Your task to perform on an android device: turn off priority inbox in the gmail app Image 0: 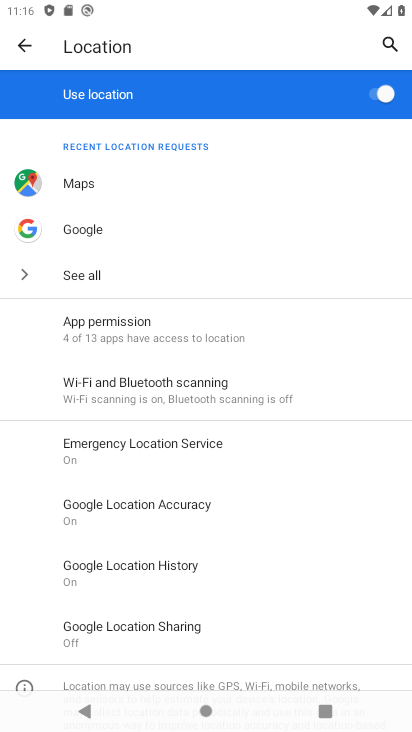
Step 0: press home button
Your task to perform on an android device: turn off priority inbox in the gmail app Image 1: 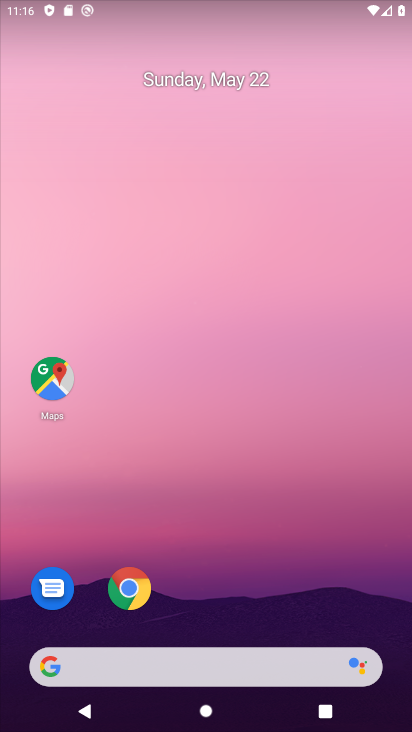
Step 1: drag from (274, 696) to (333, 167)
Your task to perform on an android device: turn off priority inbox in the gmail app Image 2: 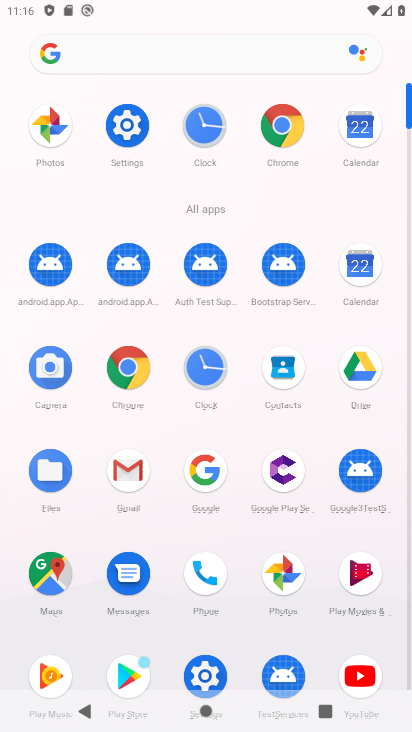
Step 2: click (126, 482)
Your task to perform on an android device: turn off priority inbox in the gmail app Image 3: 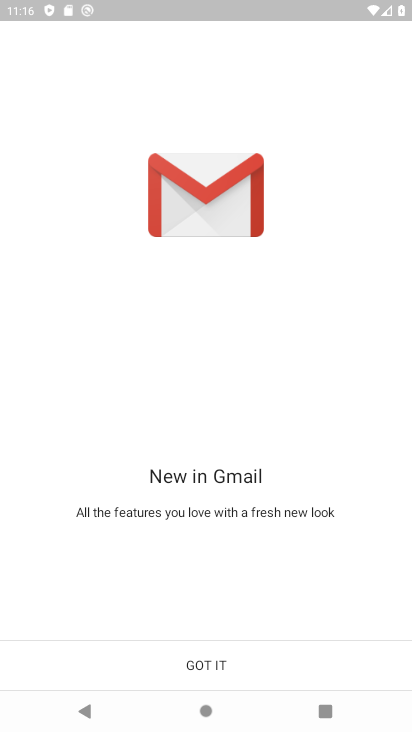
Step 3: click (207, 659)
Your task to perform on an android device: turn off priority inbox in the gmail app Image 4: 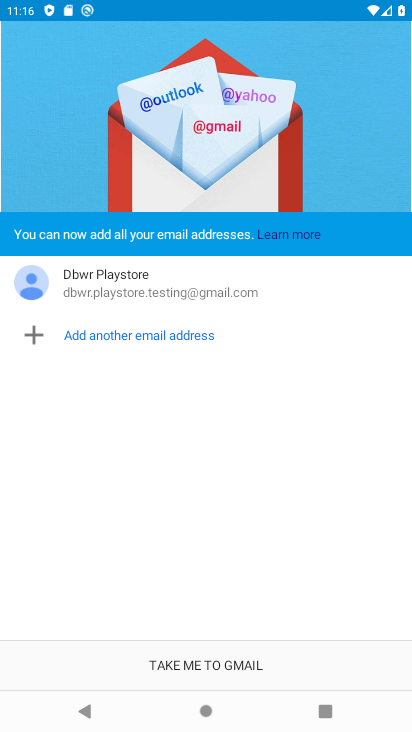
Step 4: click (200, 663)
Your task to perform on an android device: turn off priority inbox in the gmail app Image 5: 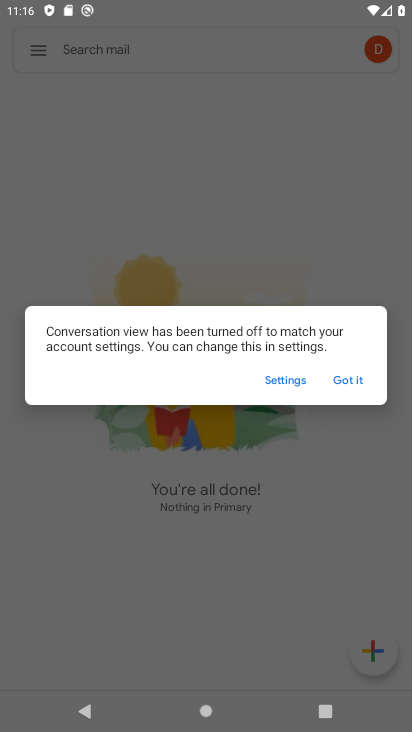
Step 5: click (358, 382)
Your task to perform on an android device: turn off priority inbox in the gmail app Image 6: 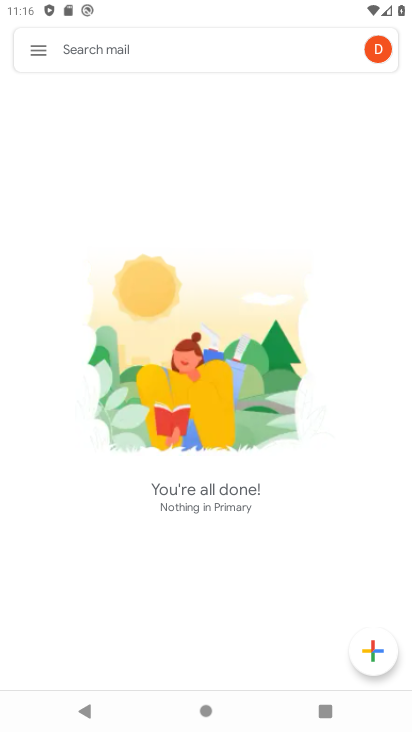
Step 6: click (45, 60)
Your task to perform on an android device: turn off priority inbox in the gmail app Image 7: 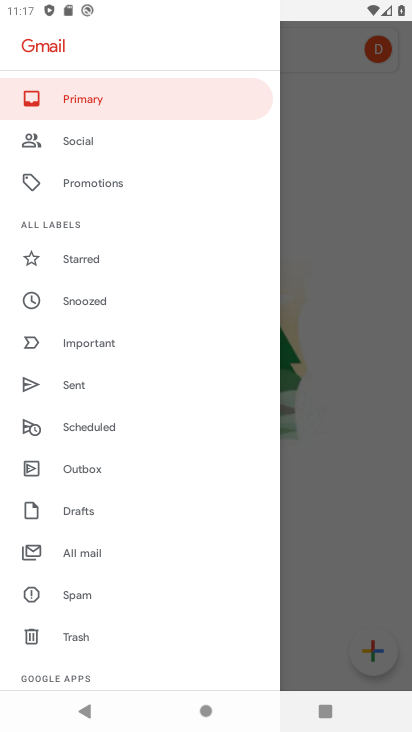
Step 7: drag from (94, 596) to (141, 346)
Your task to perform on an android device: turn off priority inbox in the gmail app Image 8: 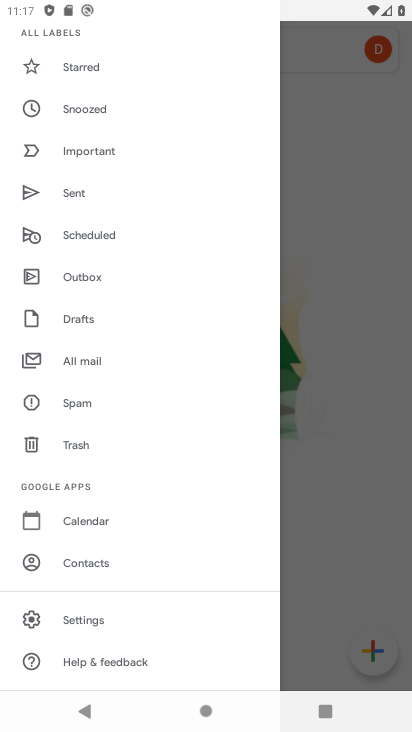
Step 8: click (92, 617)
Your task to perform on an android device: turn off priority inbox in the gmail app Image 9: 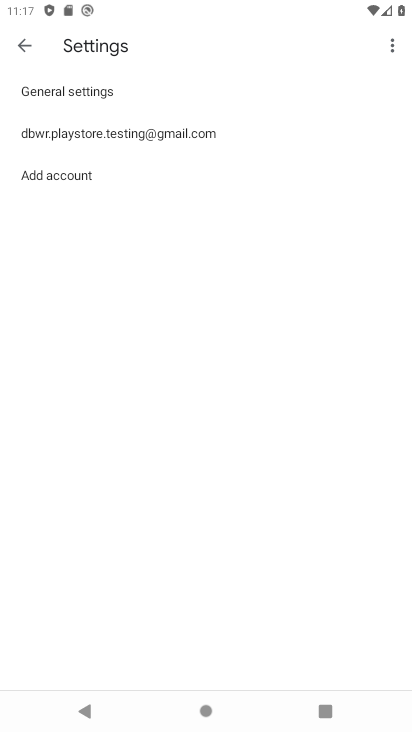
Step 9: click (131, 134)
Your task to perform on an android device: turn off priority inbox in the gmail app Image 10: 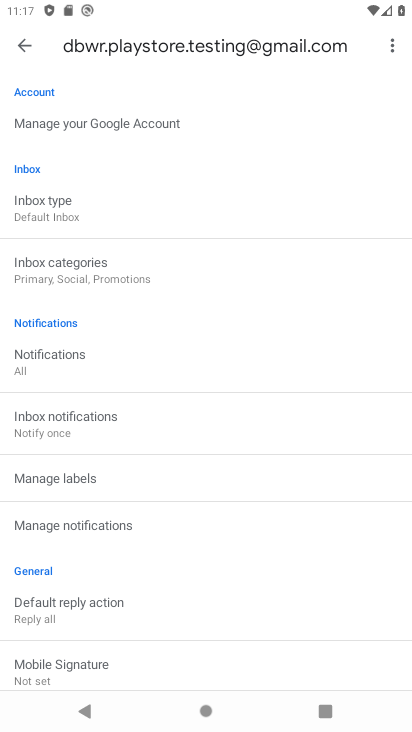
Step 10: click (69, 208)
Your task to perform on an android device: turn off priority inbox in the gmail app Image 11: 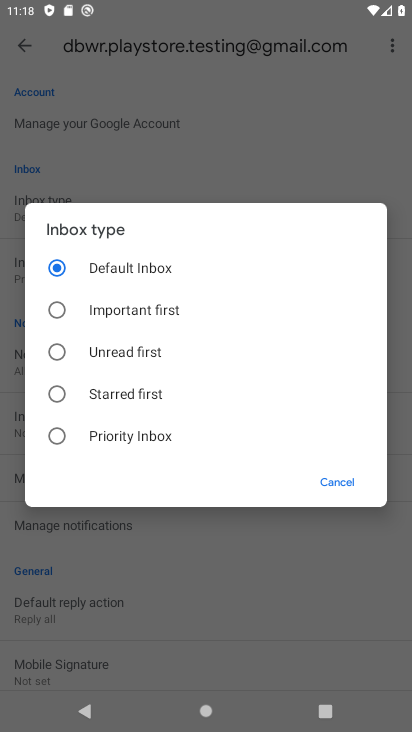
Step 11: task complete